Your task to perform on an android device: turn on javascript in the chrome app Image 0: 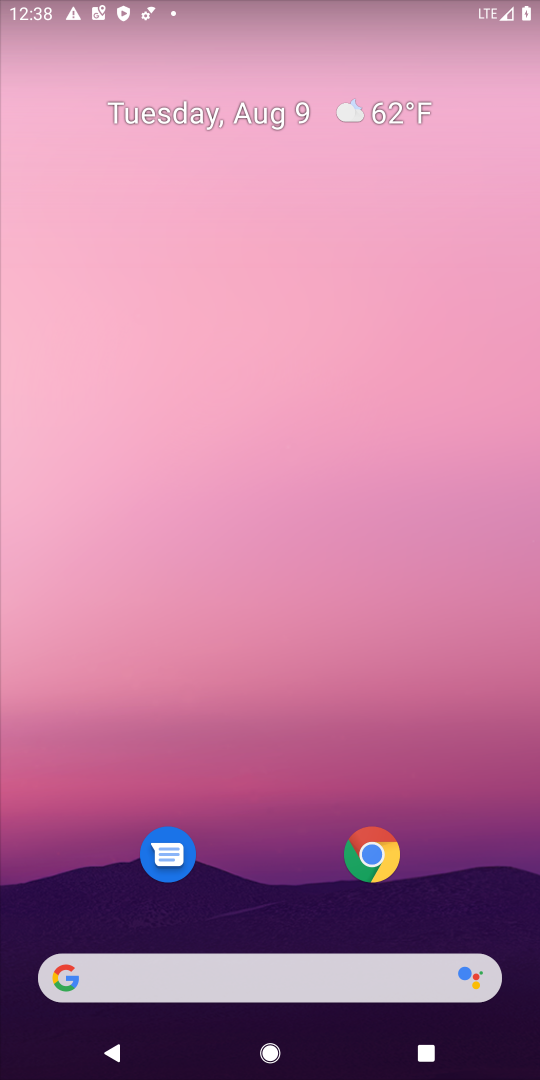
Step 0: click (377, 852)
Your task to perform on an android device: turn on javascript in the chrome app Image 1: 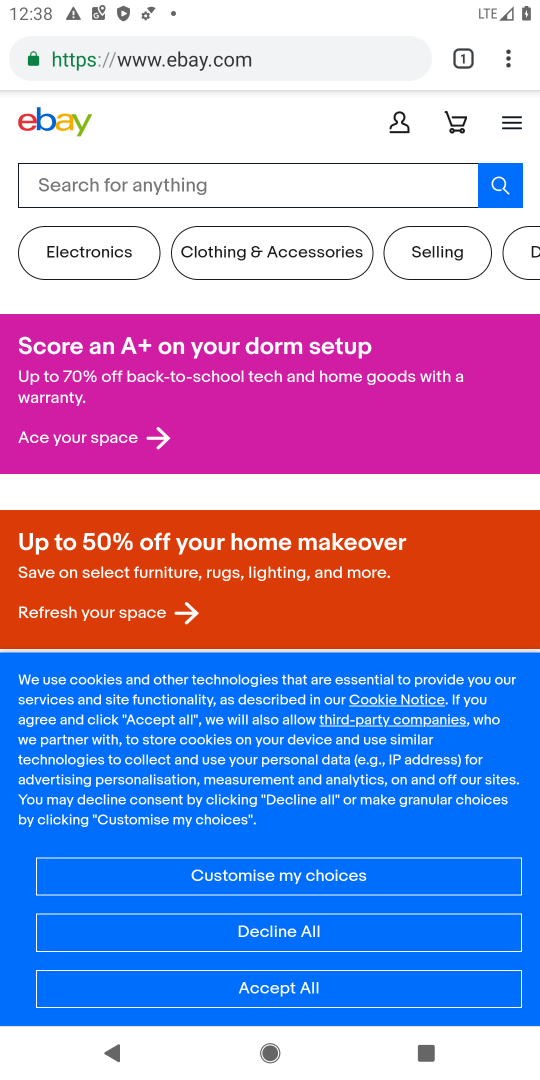
Step 1: drag from (500, 60) to (324, 700)
Your task to perform on an android device: turn on javascript in the chrome app Image 2: 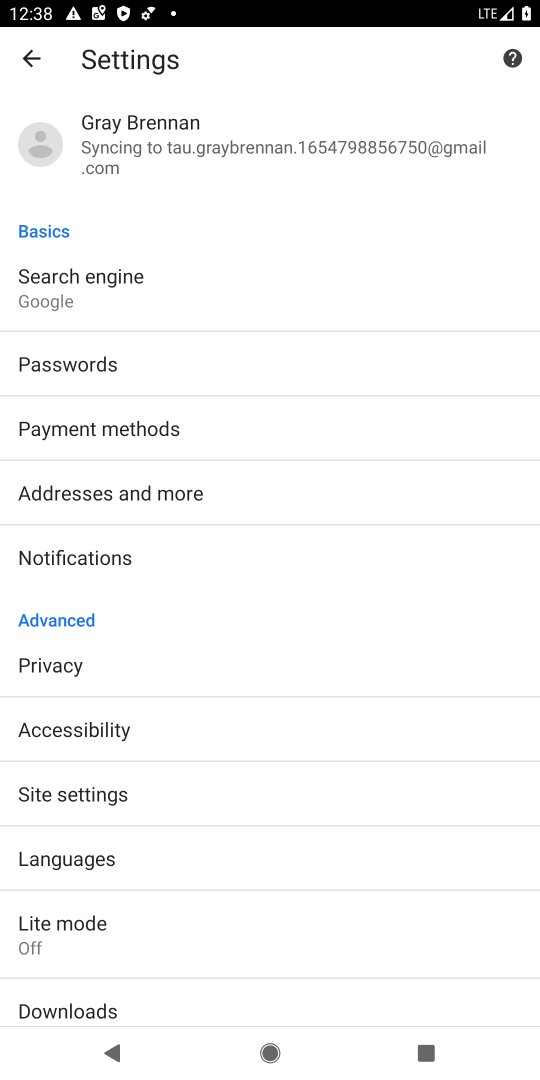
Step 2: click (119, 797)
Your task to perform on an android device: turn on javascript in the chrome app Image 3: 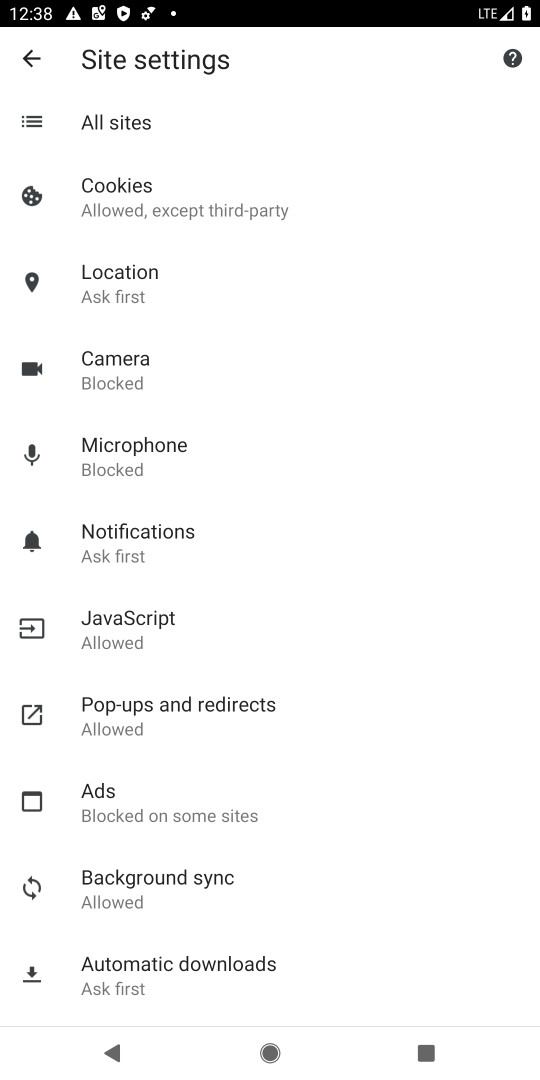
Step 3: click (148, 627)
Your task to perform on an android device: turn on javascript in the chrome app Image 4: 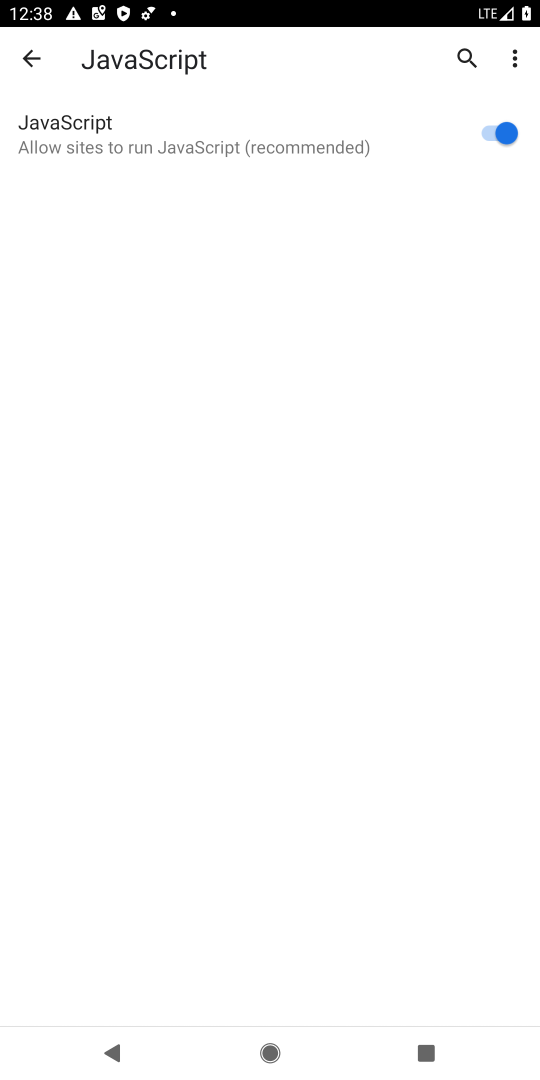
Step 4: task complete